Your task to perform on an android device: stop showing notifications on the lock screen Image 0: 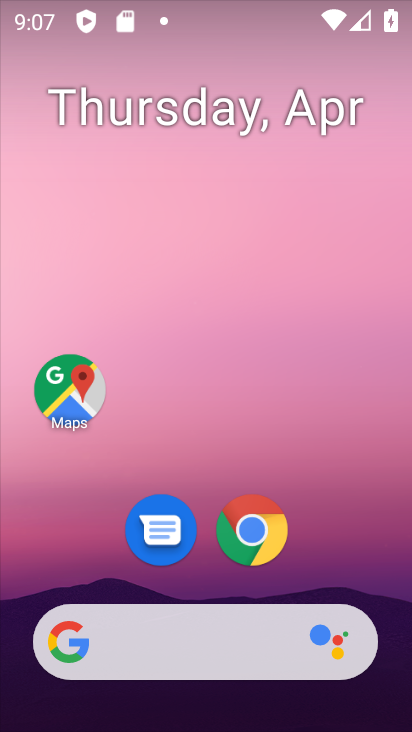
Step 0: drag from (353, 518) to (246, 30)
Your task to perform on an android device: stop showing notifications on the lock screen Image 1: 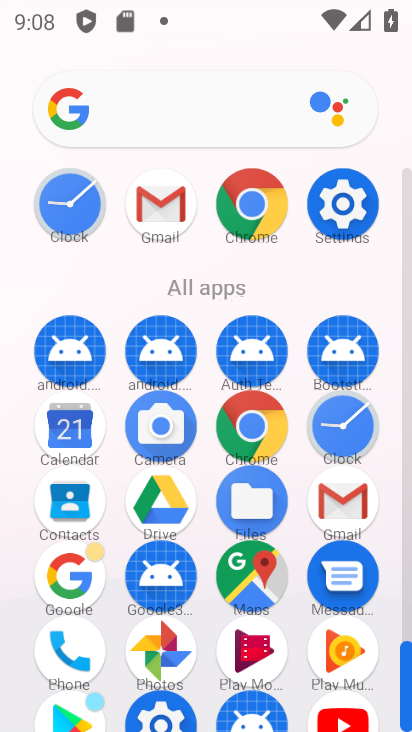
Step 1: click (345, 215)
Your task to perform on an android device: stop showing notifications on the lock screen Image 2: 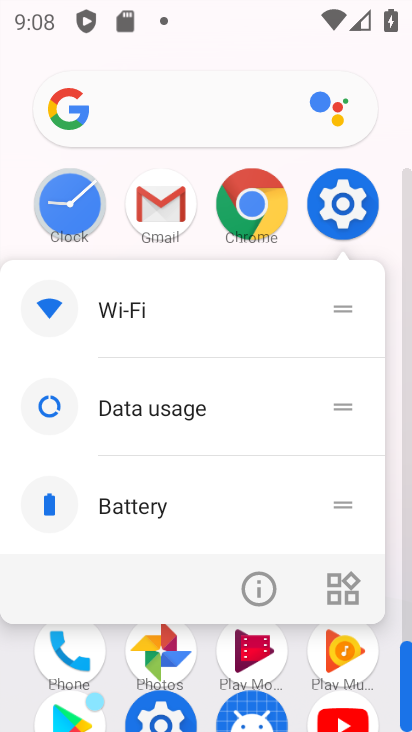
Step 2: click (345, 215)
Your task to perform on an android device: stop showing notifications on the lock screen Image 3: 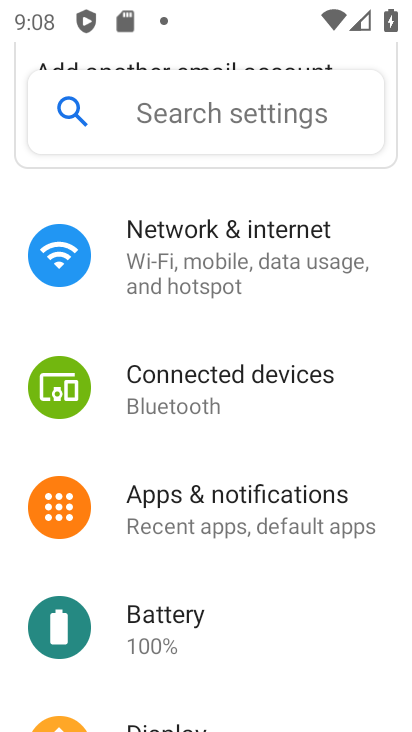
Step 3: click (282, 513)
Your task to perform on an android device: stop showing notifications on the lock screen Image 4: 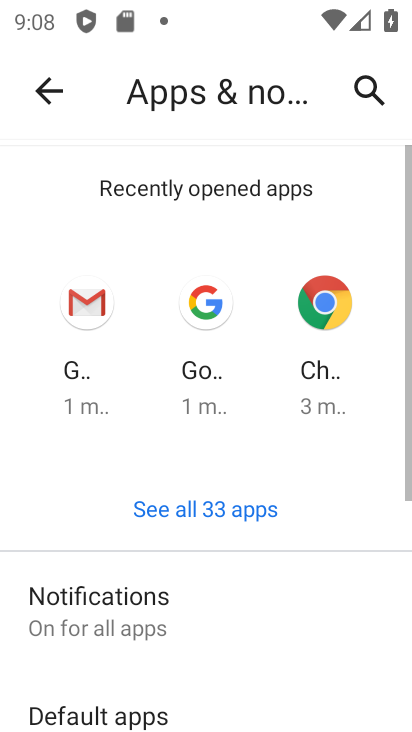
Step 4: click (248, 593)
Your task to perform on an android device: stop showing notifications on the lock screen Image 5: 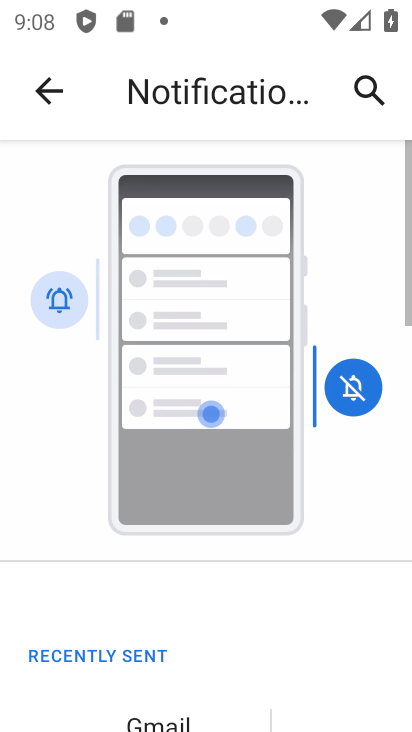
Step 5: drag from (216, 631) to (284, 43)
Your task to perform on an android device: stop showing notifications on the lock screen Image 6: 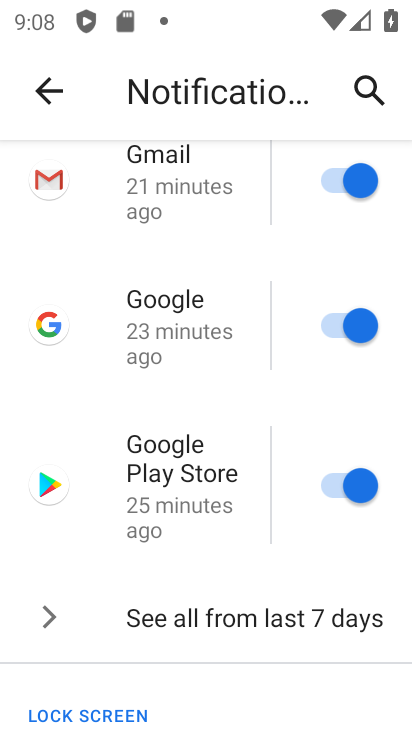
Step 6: drag from (192, 528) to (254, 99)
Your task to perform on an android device: stop showing notifications on the lock screen Image 7: 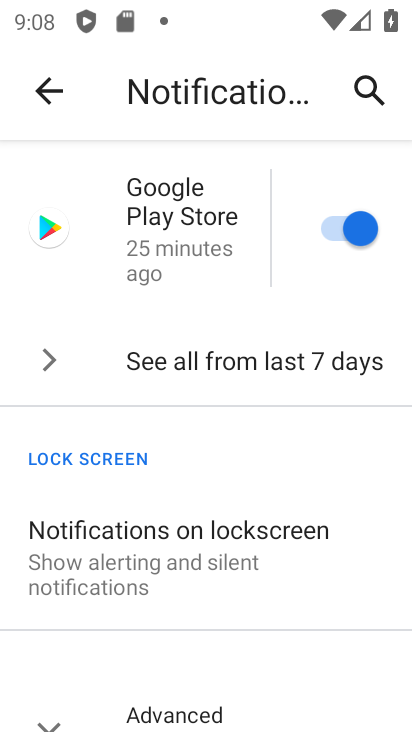
Step 7: click (166, 551)
Your task to perform on an android device: stop showing notifications on the lock screen Image 8: 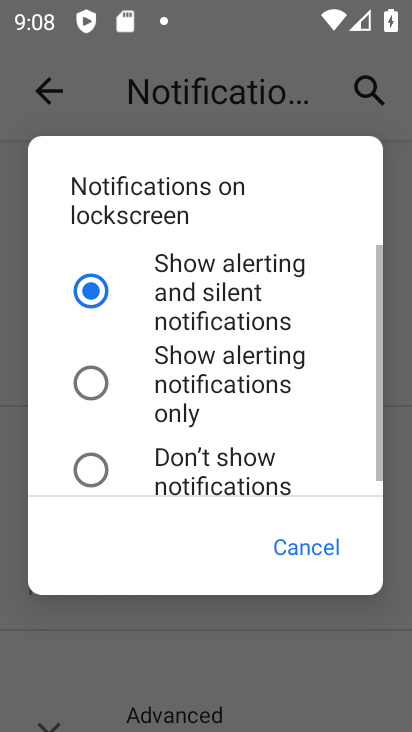
Step 8: click (152, 474)
Your task to perform on an android device: stop showing notifications on the lock screen Image 9: 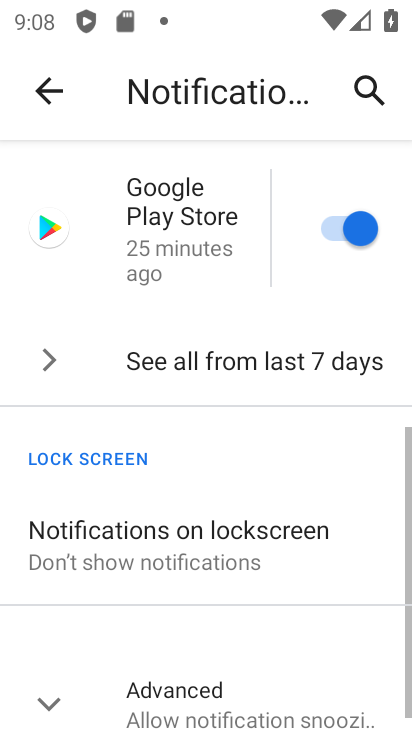
Step 9: task complete